Your task to perform on an android device: turn on wifi Image 0: 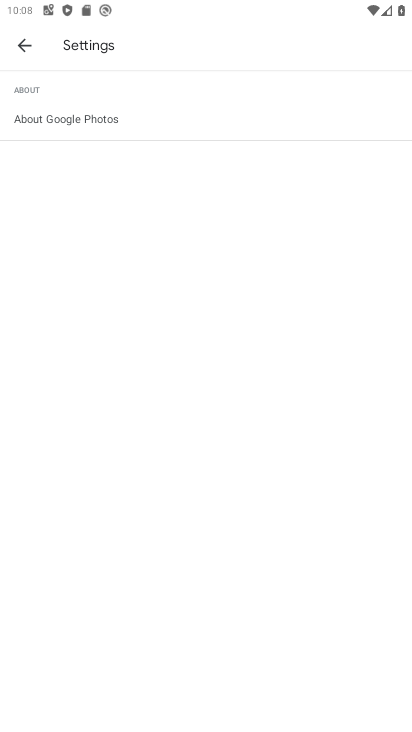
Step 0: press home button
Your task to perform on an android device: turn on wifi Image 1: 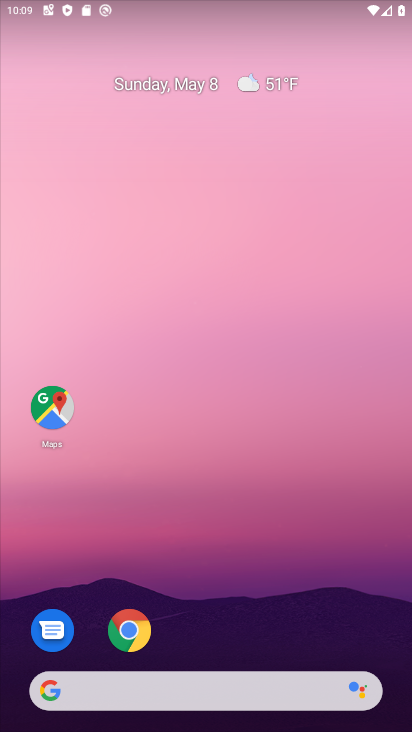
Step 1: task complete